Your task to perform on an android device: Go to Amazon Image 0: 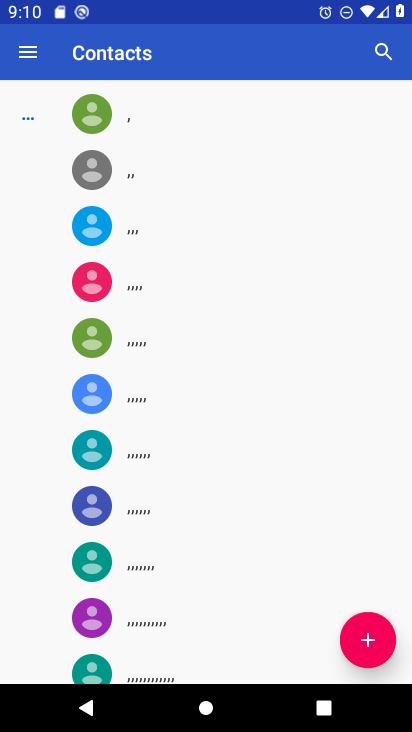
Step 0: press home button
Your task to perform on an android device: Go to Amazon Image 1: 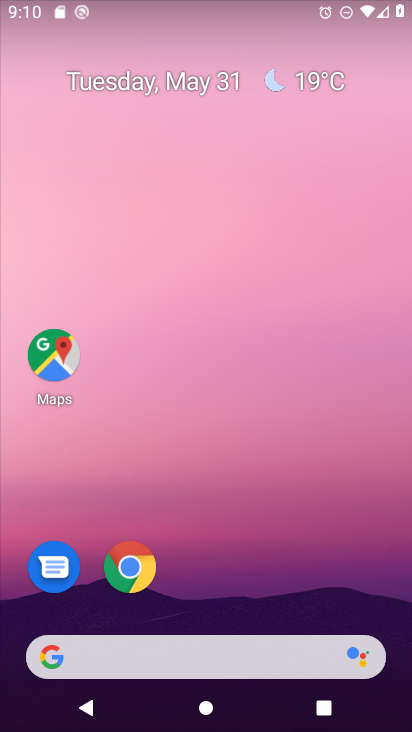
Step 1: click (132, 570)
Your task to perform on an android device: Go to Amazon Image 2: 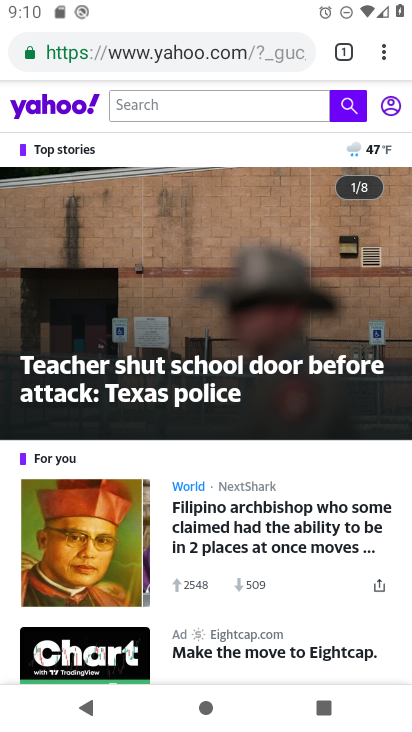
Step 2: click (341, 52)
Your task to perform on an android device: Go to Amazon Image 3: 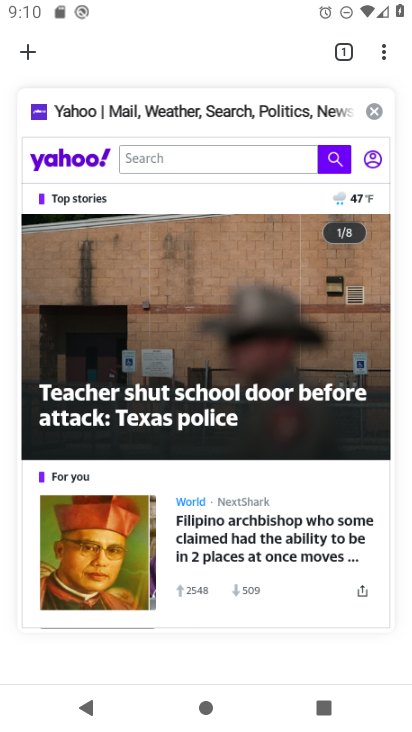
Step 3: click (377, 116)
Your task to perform on an android device: Go to Amazon Image 4: 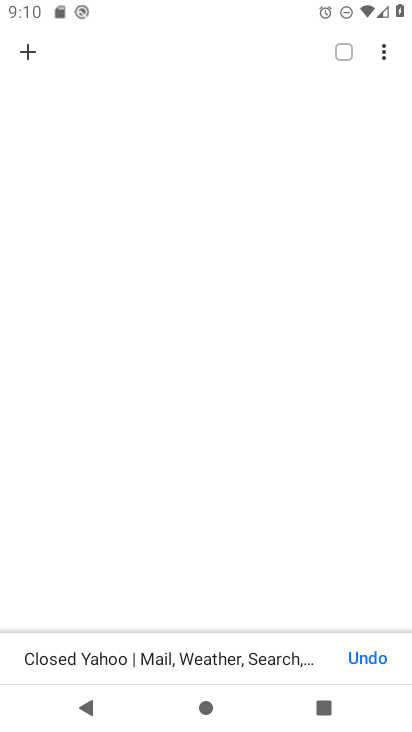
Step 4: click (30, 58)
Your task to perform on an android device: Go to Amazon Image 5: 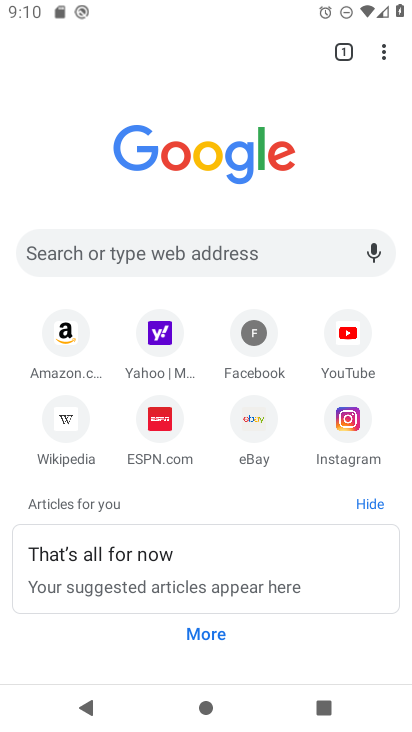
Step 5: click (68, 326)
Your task to perform on an android device: Go to Amazon Image 6: 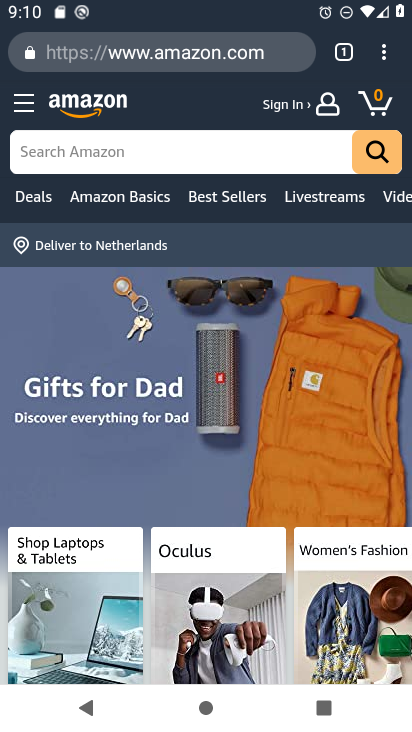
Step 6: task complete